Your task to perform on an android device: turn on showing notifications on the lock screen Image 0: 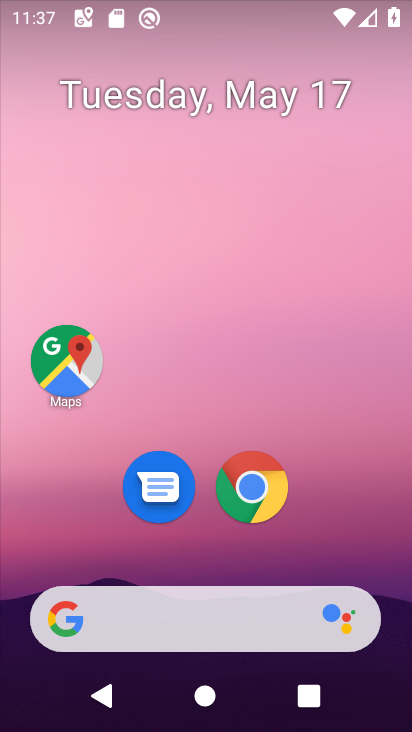
Step 0: drag from (401, 583) to (371, 258)
Your task to perform on an android device: turn on showing notifications on the lock screen Image 1: 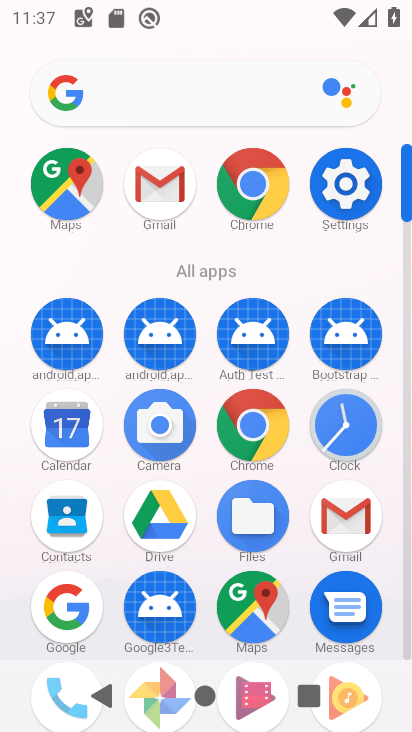
Step 1: click (349, 193)
Your task to perform on an android device: turn on showing notifications on the lock screen Image 2: 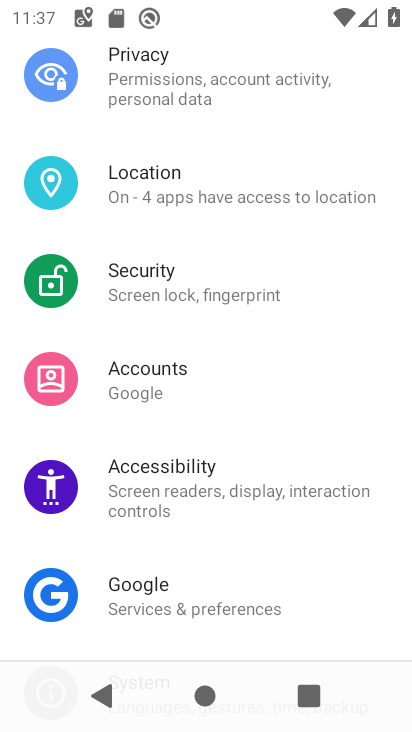
Step 2: drag from (292, 140) to (177, 667)
Your task to perform on an android device: turn on showing notifications on the lock screen Image 3: 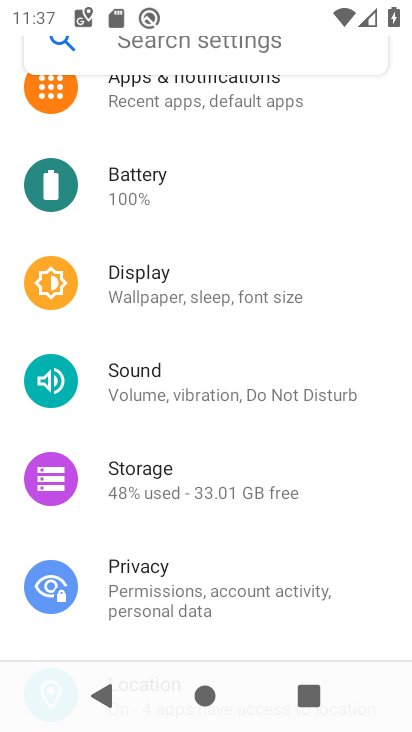
Step 3: drag from (193, 140) to (154, 488)
Your task to perform on an android device: turn on showing notifications on the lock screen Image 4: 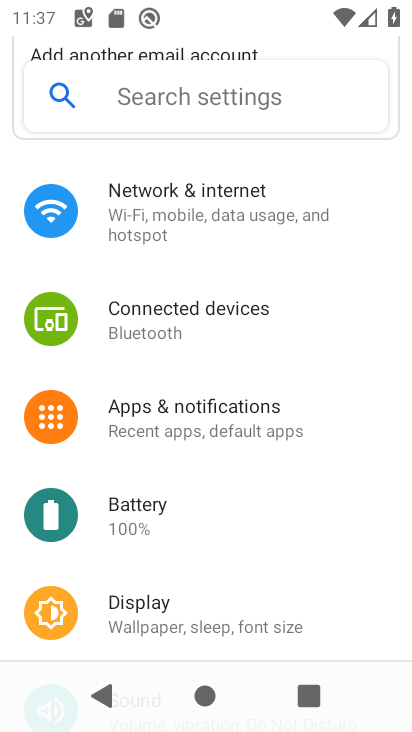
Step 4: click (202, 220)
Your task to perform on an android device: turn on showing notifications on the lock screen Image 5: 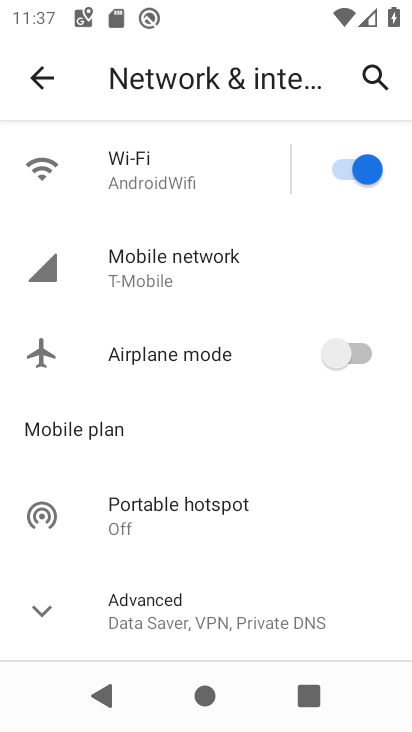
Step 5: click (40, 76)
Your task to perform on an android device: turn on showing notifications on the lock screen Image 6: 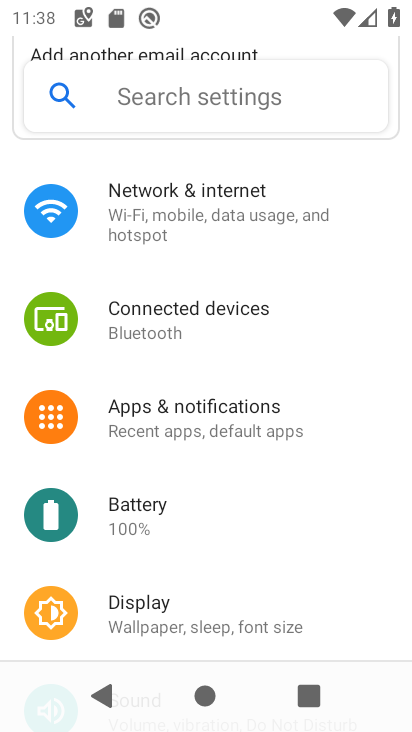
Step 6: click (211, 428)
Your task to perform on an android device: turn on showing notifications on the lock screen Image 7: 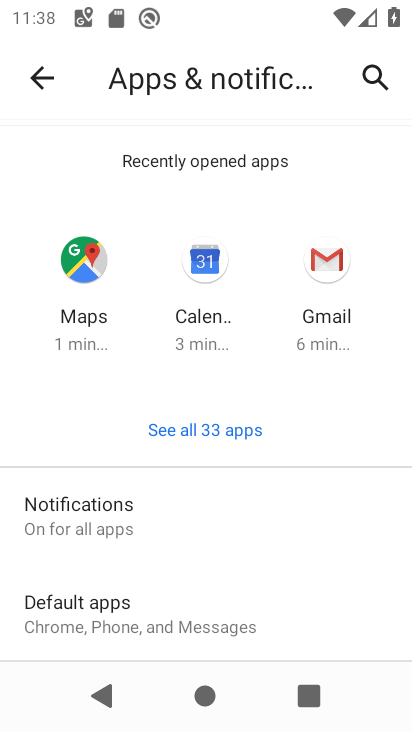
Step 7: click (233, 501)
Your task to perform on an android device: turn on showing notifications on the lock screen Image 8: 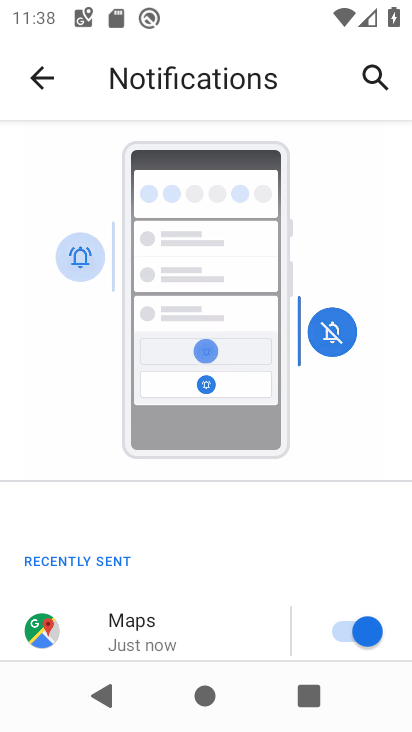
Step 8: drag from (236, 548) to (247, 89)
Your task to perform on an android device: turn on showing notifications on the lock screen Image 9: 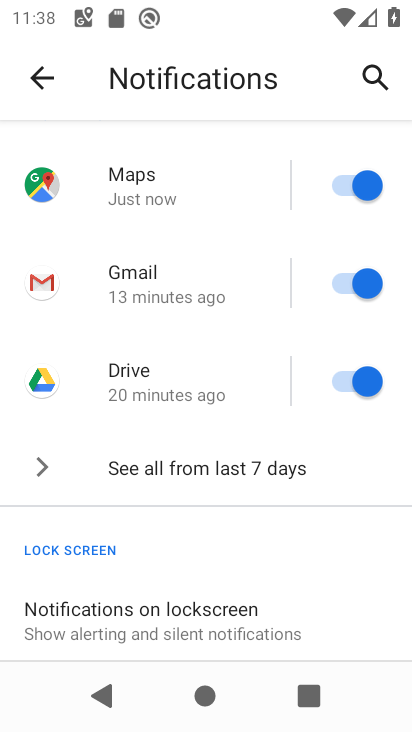
Step 9: drag from (292, 587) to (297, 192)
Your task to perform on an android device: turn on showing notifications on the lock screen Image 10: 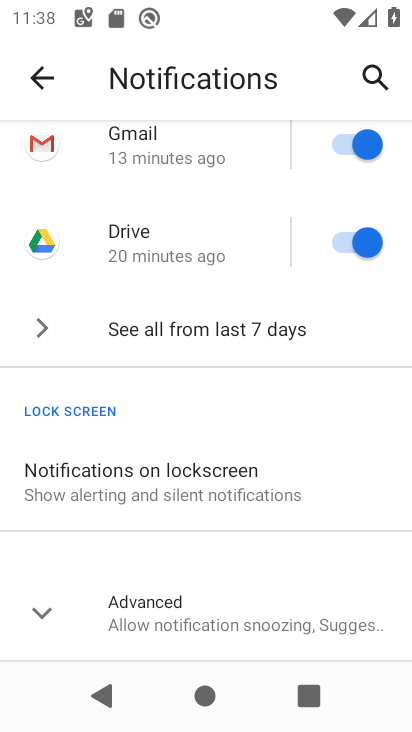
Step 10: click (340, 507)
Your task to perform on an android device: turn on showing notifications on the lock screen Image 11: 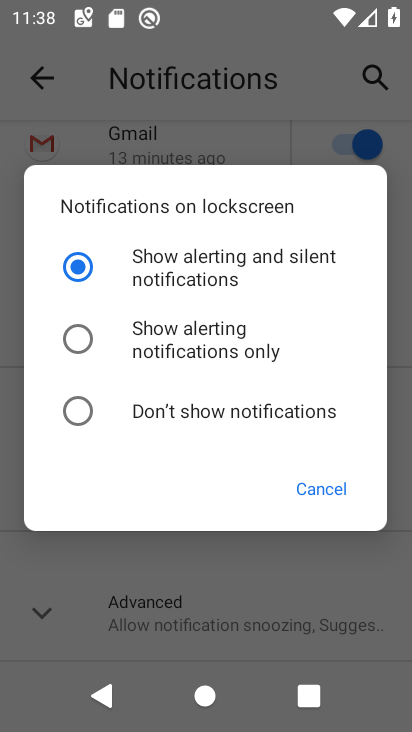
Step 11: task complete